Your task to perform on an android device: Go to eBay Image 0: 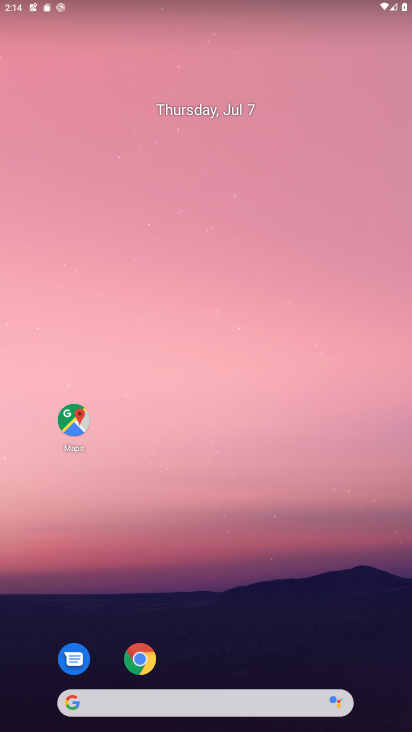
Step 0: drag from (208, 656) to (289, 221)
Your task to perform on an android device: Go to eBay Image 1: 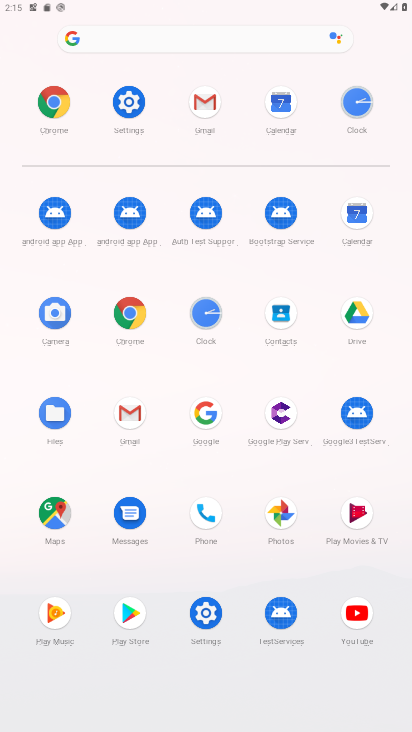
Step 1: click (58, 104)
Your task to perform on an android device: Go to eBay Image 2: 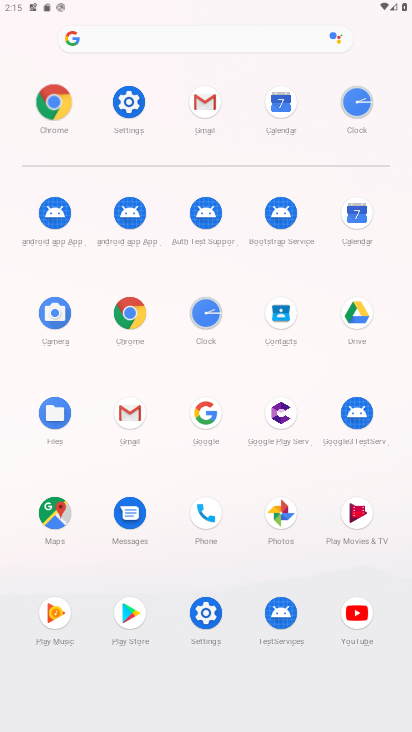
Step 2: click (58, 104)
Your task to perform on an android device: Go to eBay Image 3: 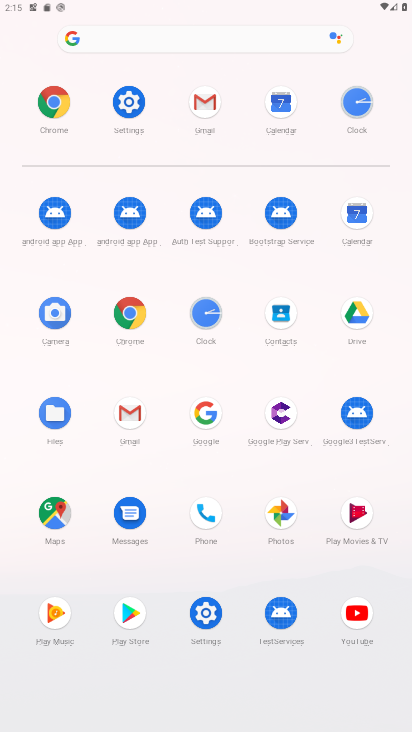
Step 3: click (124, 320)
Your task to perform on an android device: Go to eBay Image 4: 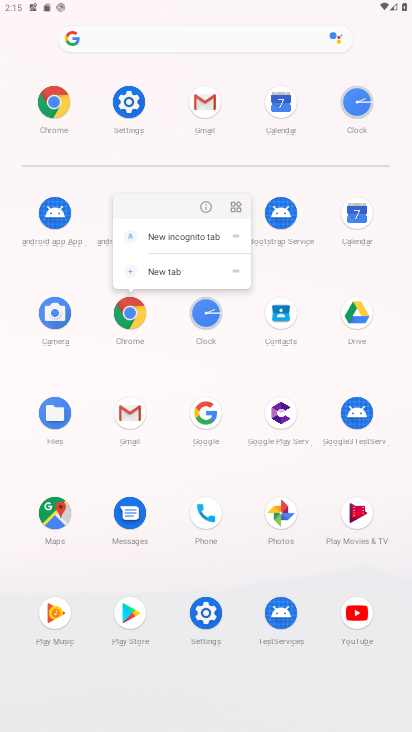
Step 4: click (204, 202)
Your task to perform on an android device: Go to eBay Image 5: 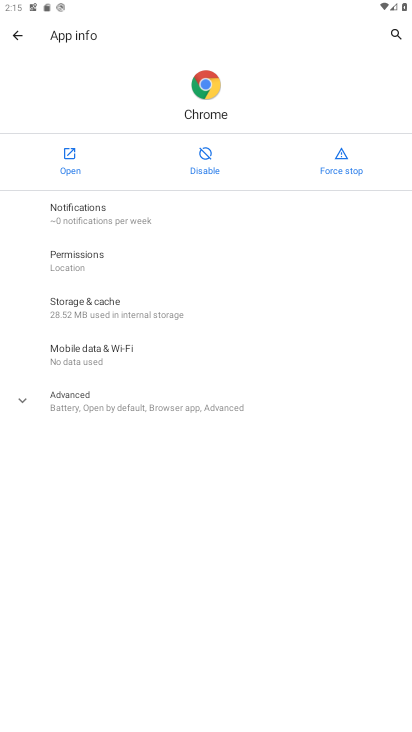
Step 5: click (64, 161)
Your task to perform on an android device: Go to eBay Image 6: 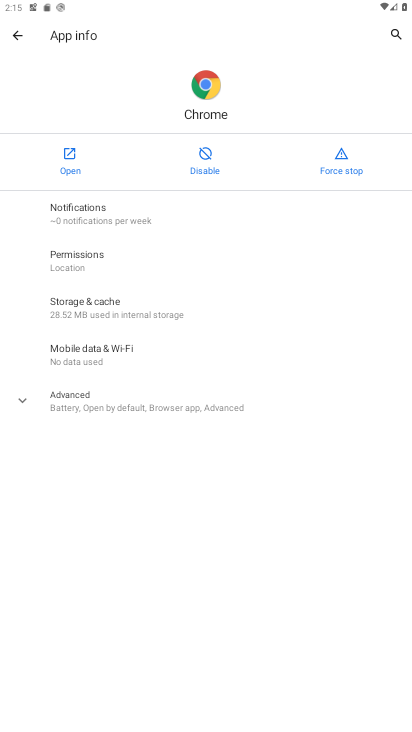
Step 6: click (66, 162)
Your task to perform on an android device: Go to eBay Image 7: 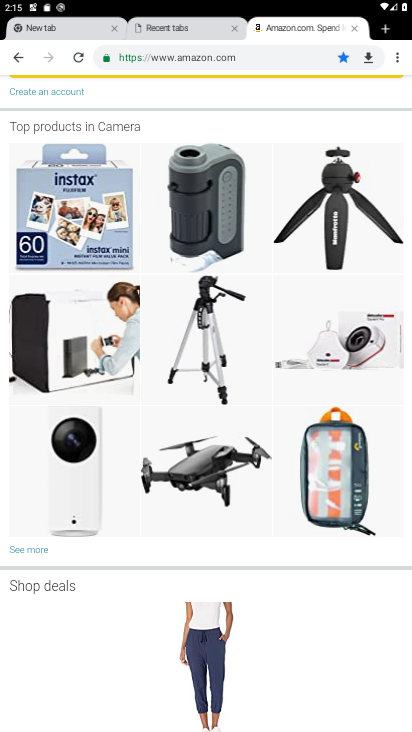
Step 7: drag from (242, 507) to (321, 219)
Your task to perform on an android device: Go to eBay Image 8: 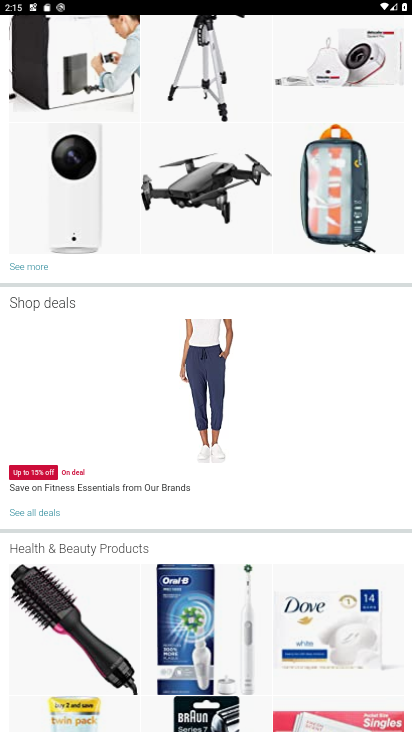
Step 8: drag from (214, 374) to (375, 731)
Your task to perform on an android device: Go to eBay Image 9: 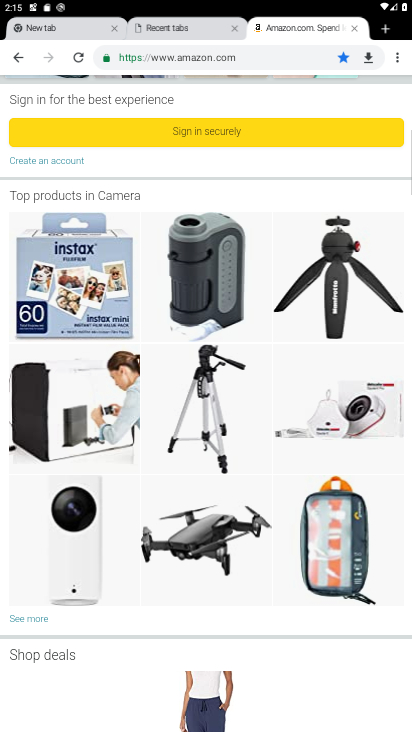
Step 9: drag from (208, 212) to (409, 465)
Your task to perform on an android device: Go to eBay Image 10: 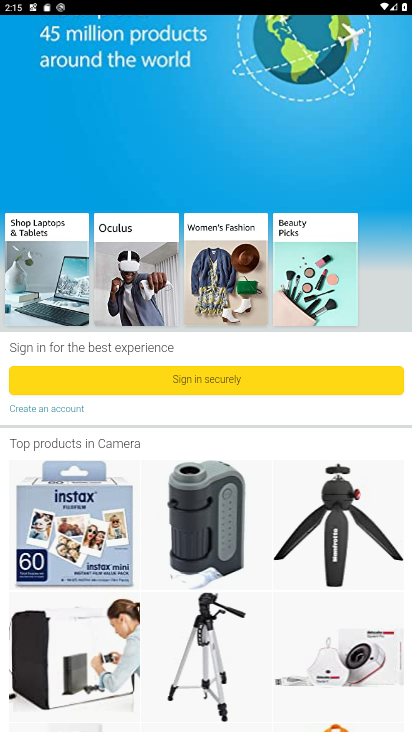
Step 10: drag from (336, 103) to (406, 115)
Your task to perform on an android device: Go to eBay Image 11: 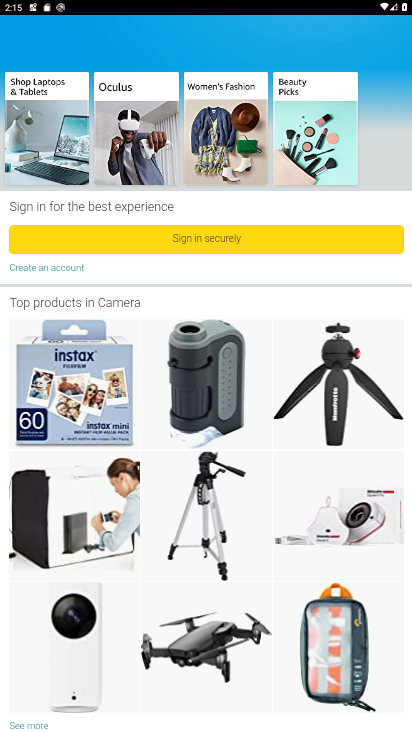
Step 11: drag from (379, 59) to (359, 484)
Your task to perform on an android device: Go to eBay Image 12: 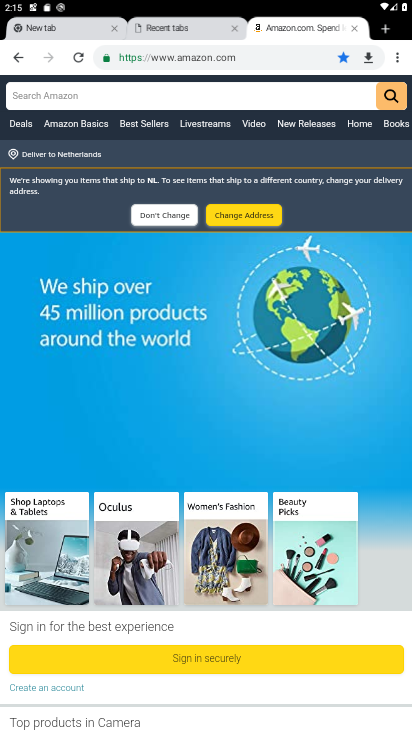
Step 12: click (389, 26)
Your task to perform on an android device: Go to eBay Image 13: 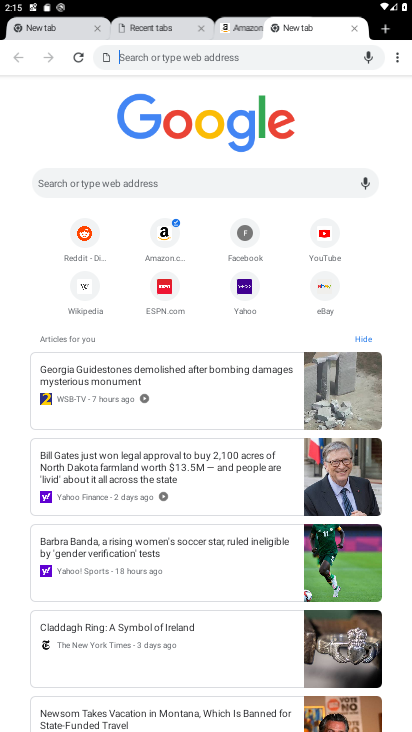
Step 13: click (325, 287)
Your task to perform on an android device: Go to eBay Image 14: 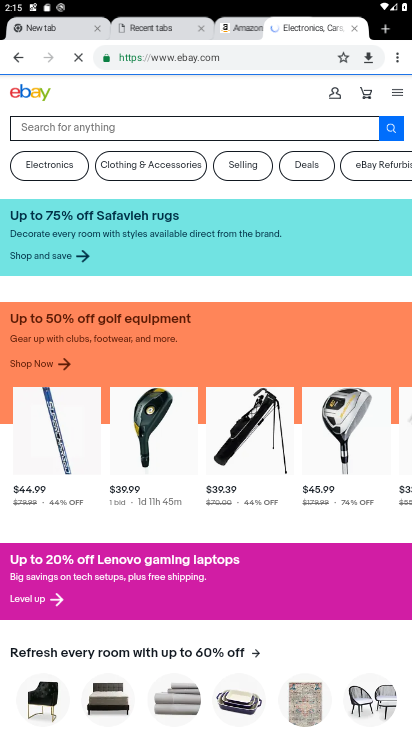
Step 14: task complete